Your task to perform on an android device: turn on translation in the chrome app Image 0: 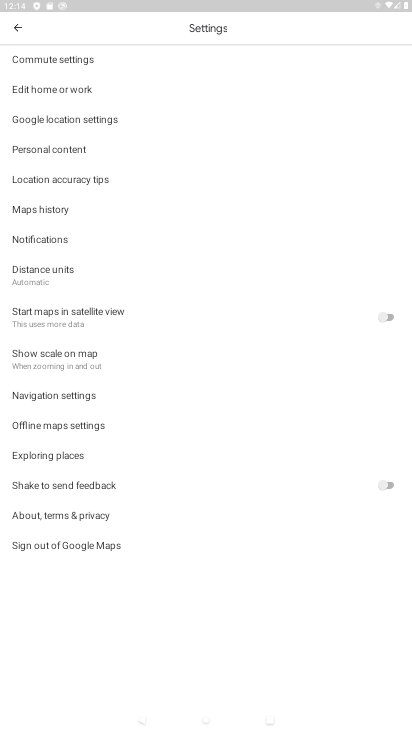
Step 0: press home button
Your task to perform on an android device: turn on translation in the chrome app Image 1: 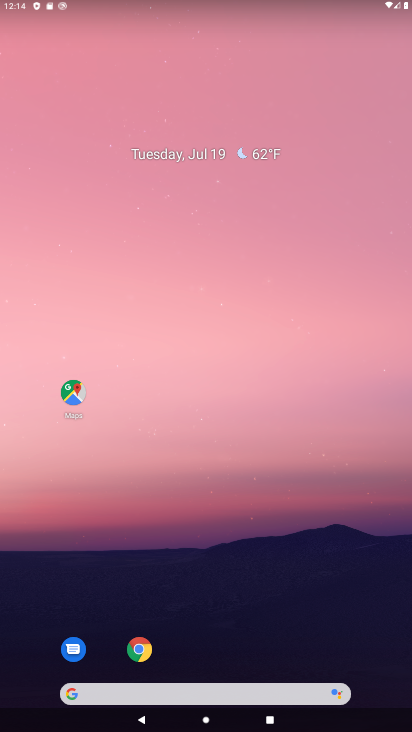
Step 1: drag from (195, 656) to (221, 135)
Your task to perform on an android device: turn on translation in the chrome app Image 2: 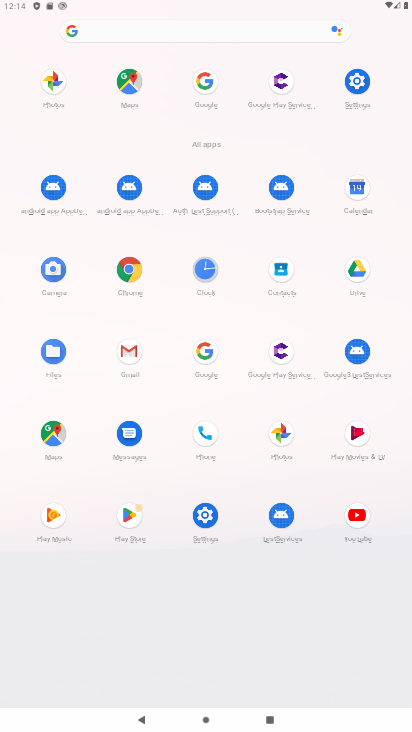
Step 2: click (129, 272)
Your task to perform on an android device: turn on translation in the chrome app Image 3: 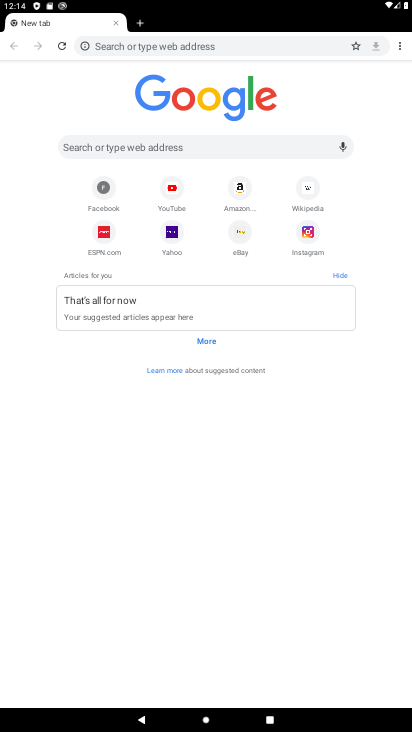
Step 3: click (396, 45)
Your task to perform on an android device: turn on translation in the chrome app Image 4: 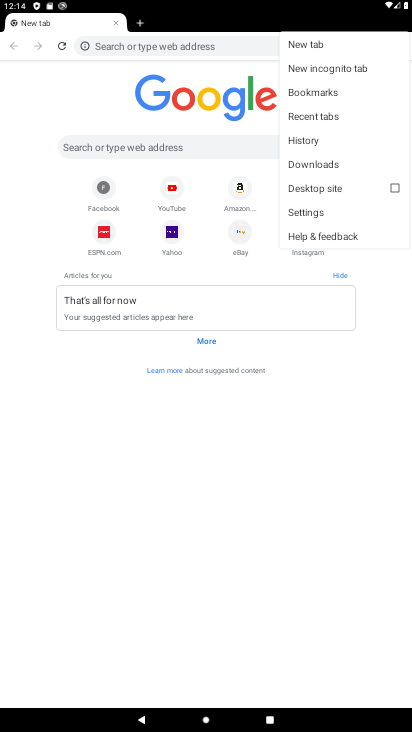
Step 4: click (318, 214)
Your task to perform on an android device: turn on translation in the chrome app Image 5: 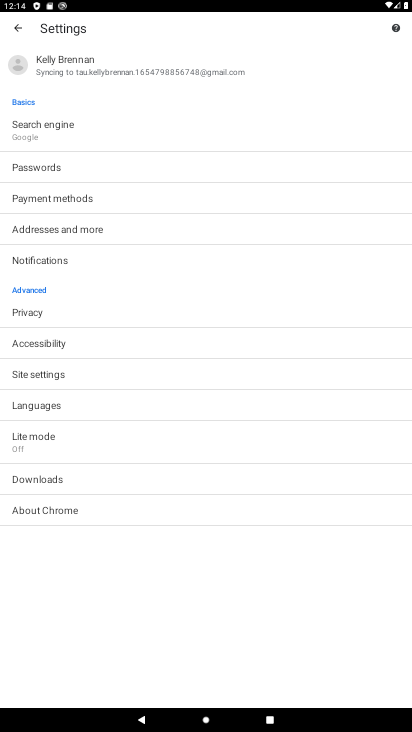
Step 5: click (43, 402)
Your task to perform on an android device: turn on translation in the chrome app Image 6: 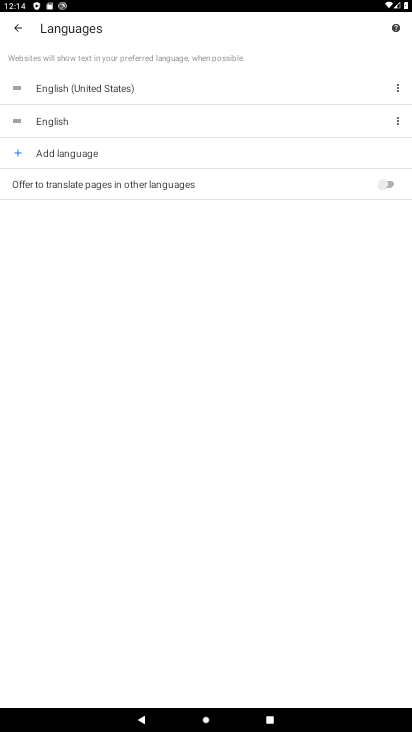
Step 6: click (388, 182)
Your task to perform on an android device: turn on translation in the chrome app Image 7: 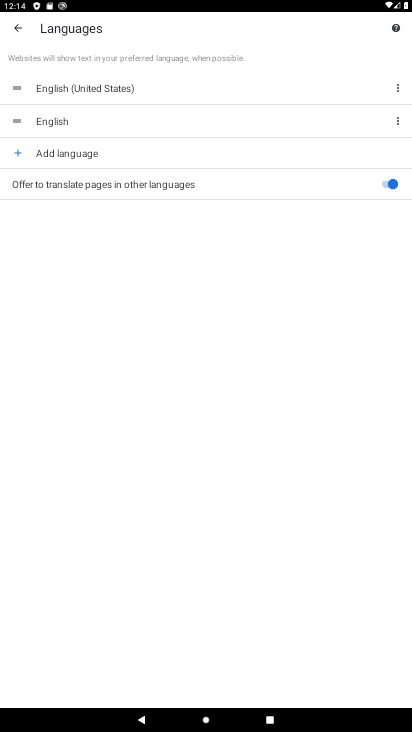
Step 7: task complete